Your task to perform on an android device: Show me popular games on the Play Store Image 0: 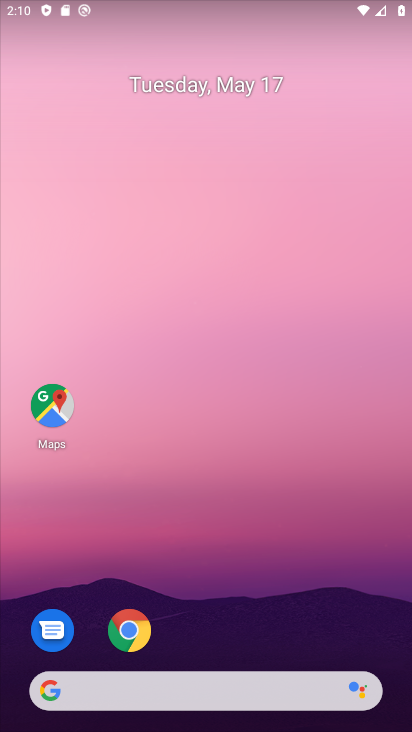
Step 0: drag from (359, 656) to (103, 162)
Your task to perform on an android device: Show me popular games on the Play Store Image 1: 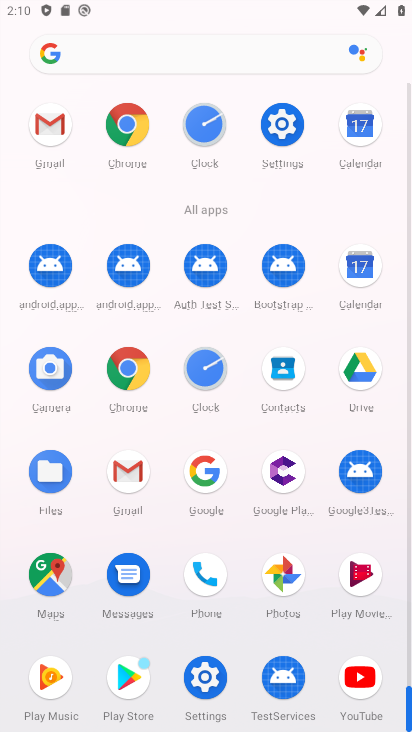
Step 1: click (131, 670)
Your task to perform on an android device: Show me popular games on the Play Store Image 2: 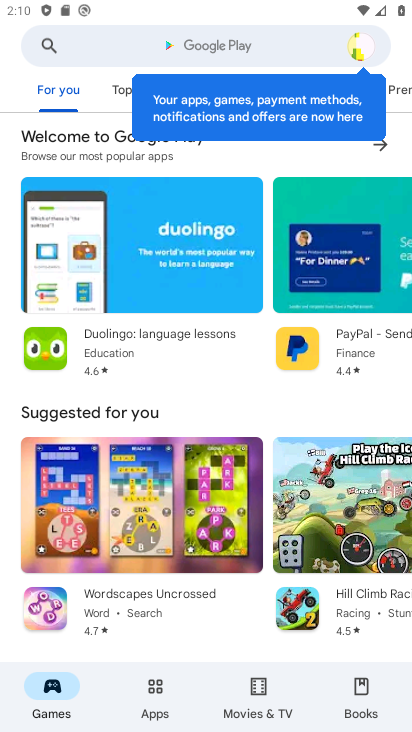
Step 2: click (113, 51)
Your task to perform on an android device: Show me popular games on the Play Store Image 3: 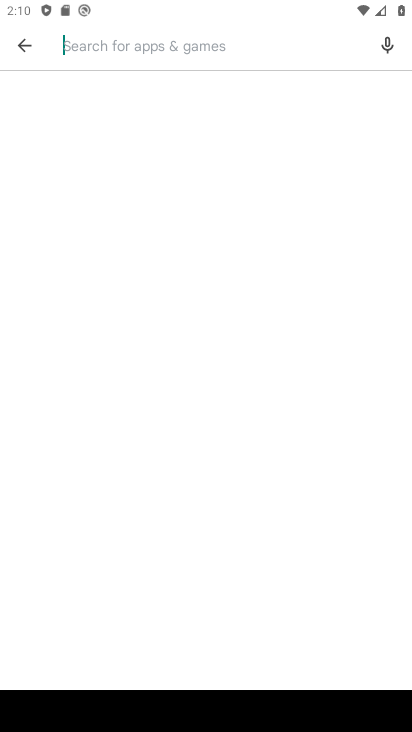
Step 3: type "popular games"
Your task to perform on an android device: Show me popular games on the Play Store Image 4: 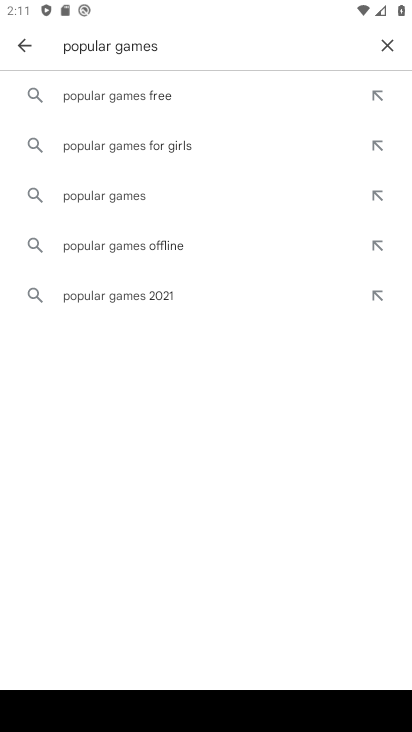
Step 4: click (120, 103)
Your task to perform on an android device: Show me popular games on the Play Store Image 5: 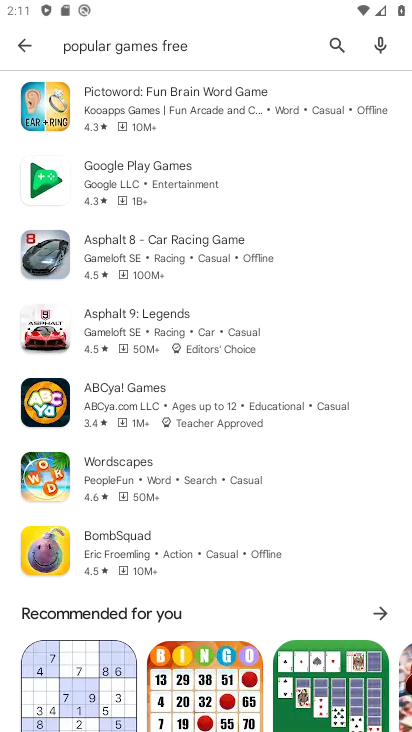
Step 5: task complete